Your task to perform on an android device: clear all cookies in the chrome app Image 0: 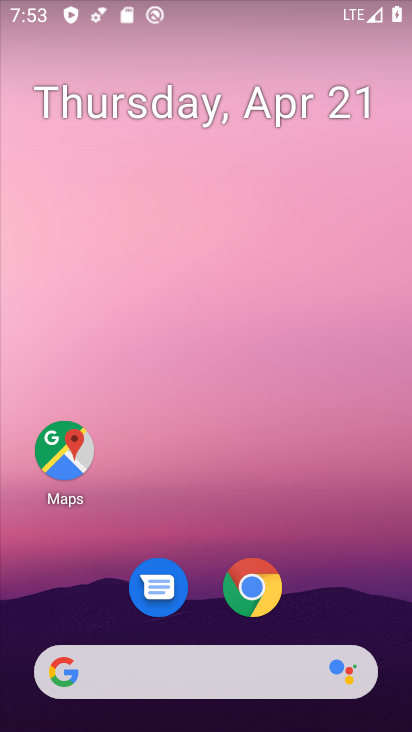
Step 0: click (245, 577)
Your task to perform on an android device: clear all cookies in the chrome app Image 1: 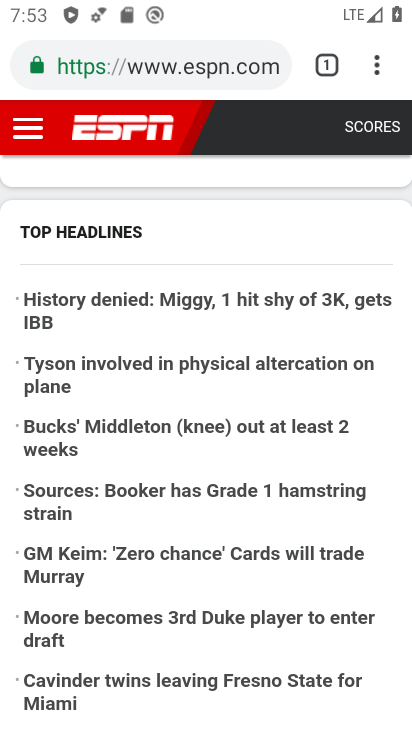
Step 1: click (375, 59)
Your task to perform on an android device: clear all cookies in the chrome app Image 2: 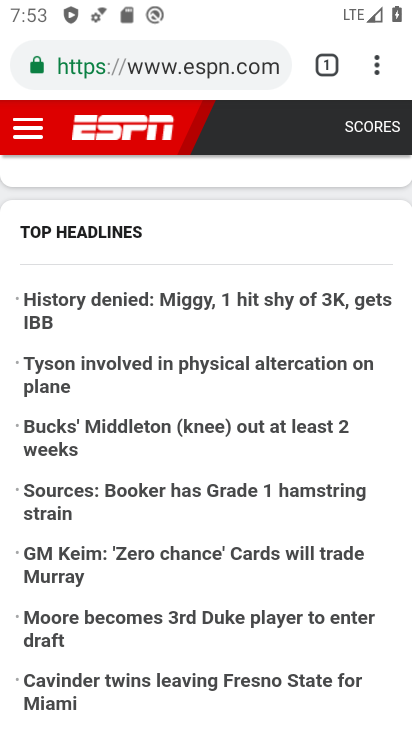
Step 2: click (374, 59)
Your task to perform on an android device: clear all cookies in the chrome app Image 3: 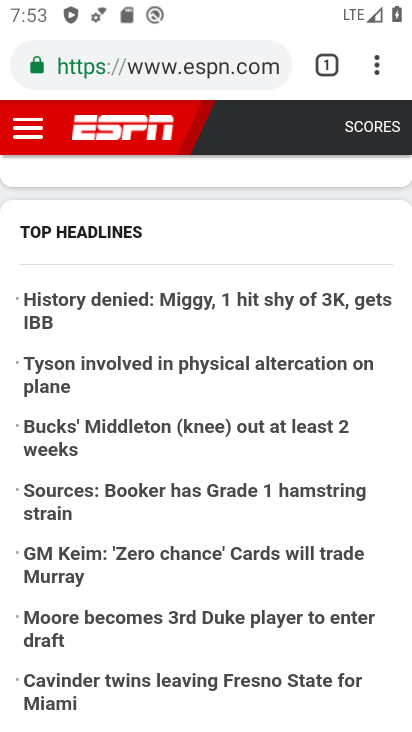
Step 3: click (374, 59)
Your task to perform on an android device: clear all cookies in the chrome app Image 4: 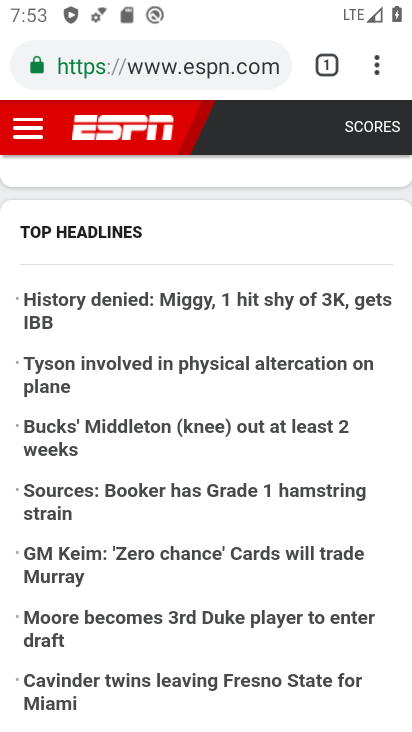
Step 4: click (374, 59)
Your task to perform on an android device: clear all cookies in the chrome app Image 5: 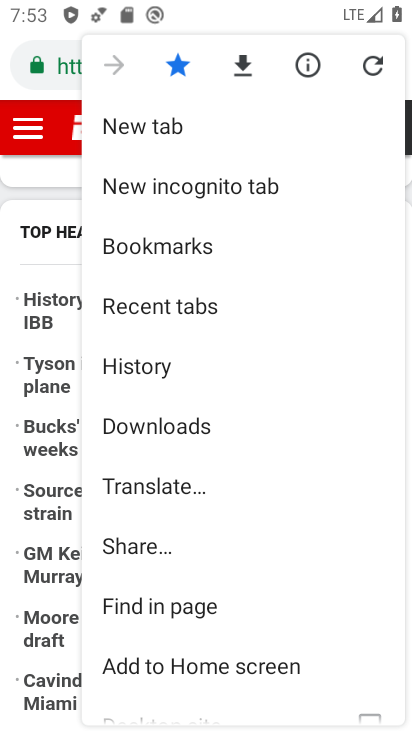
Step 5: click (143, 366)
Your task to perform on an android device: clear all cookies in the chrome app Image 6: 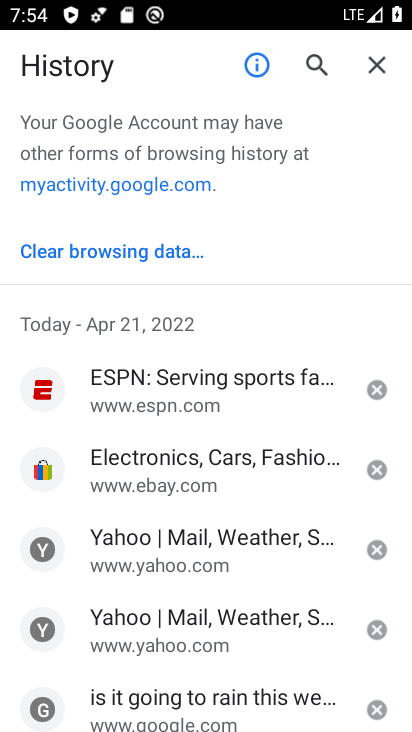
Step 6: click (70, 254)
Your task to perform on an android device: clear all cookies in the chrome app Image 7: 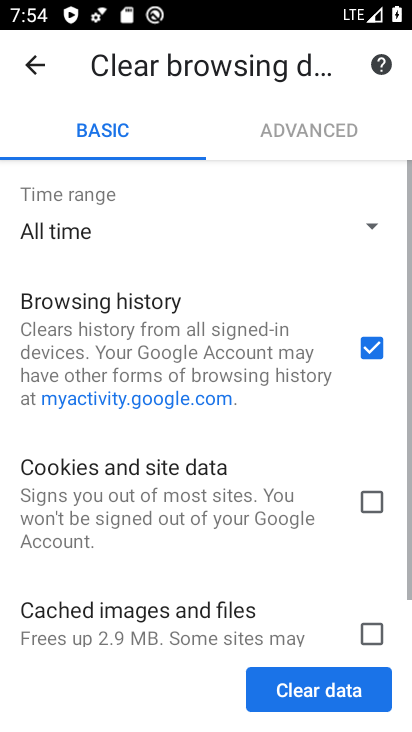
Step 7: click (301, 689)
Your task to perform on an android device: clear all cookies in the chrome app Image 8: 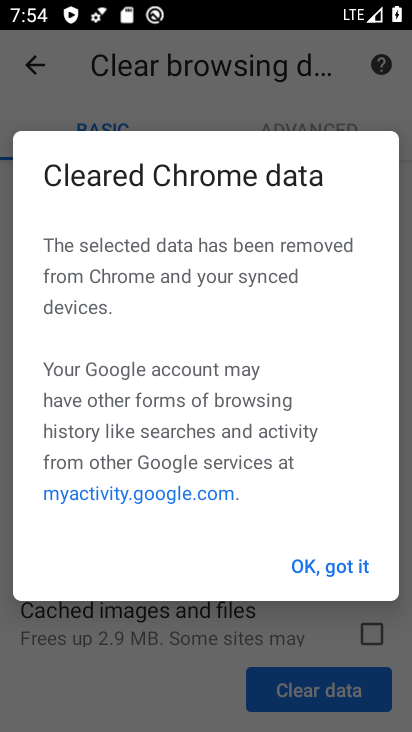
Step 8: click (333, 572)
Your task to perform on an android device: clear all cookies in the chrome app Image 9: 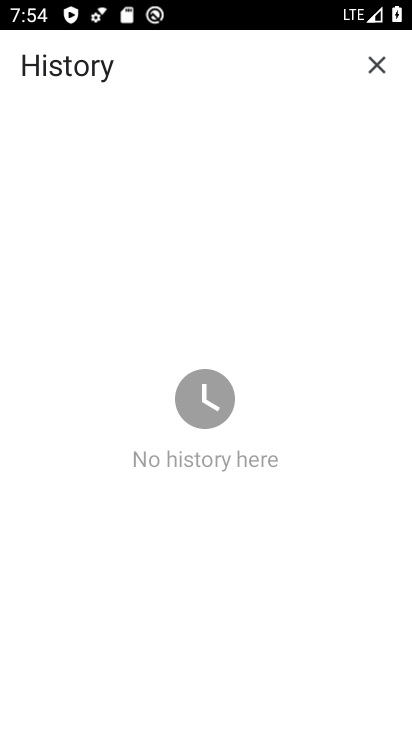
Step 9: task complete